Your task to perform on an android device: Find coffee shops on Maps Image 0: 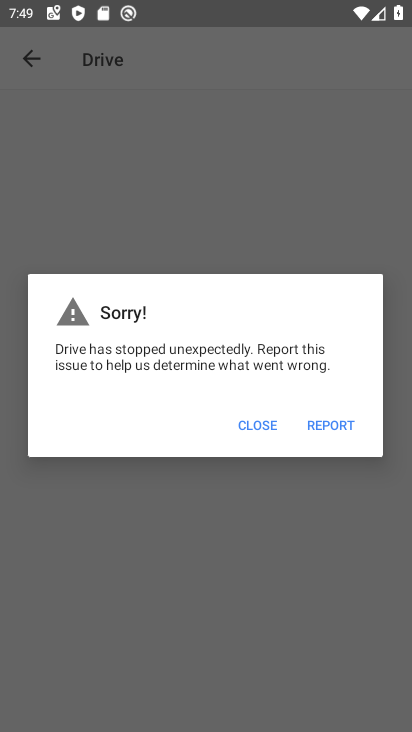
Step 0: press home button
Your task to perform on an android device: Find coffee shops on Maps Image 1: 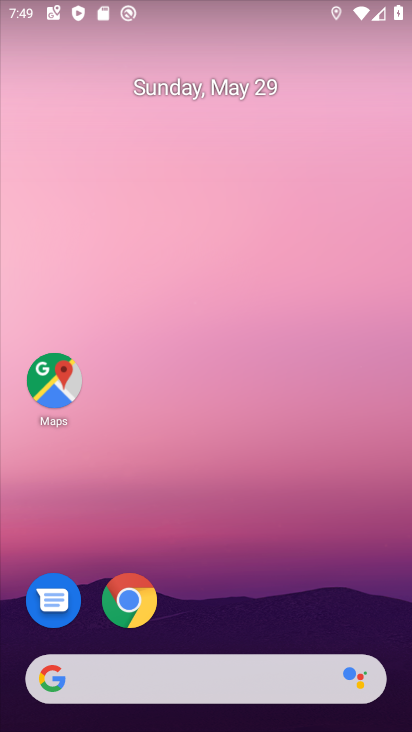
Step 1: drag from (324, 606) to (280, 34)
Your task to perform on an android device: Find coffee shops on Maps Image 2: 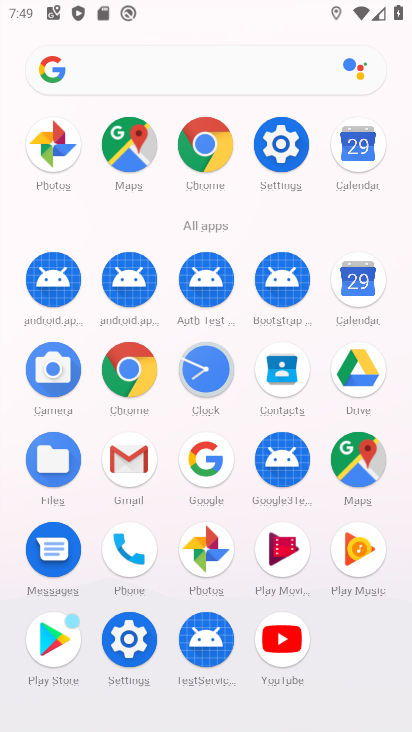
Step 2: click (125, 146)
Your task to perform on an android device: Find coffee shops on Maps Image 3: 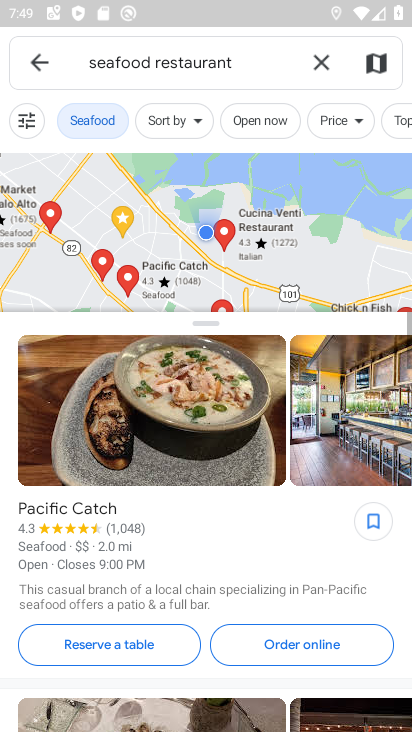
Step 3: click (314, 66)
Your task to perform on an android device: Find coffee shops on Maps Image 4: 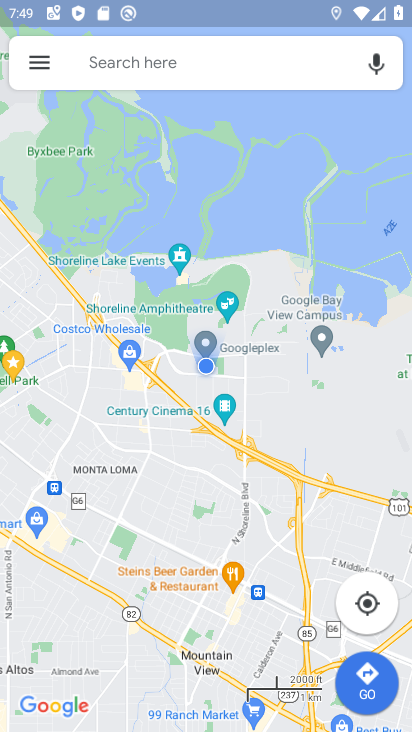
Step 4: click (181, 58)
Your task to perform on an android device: Find coffee shops on Maps Image 5: 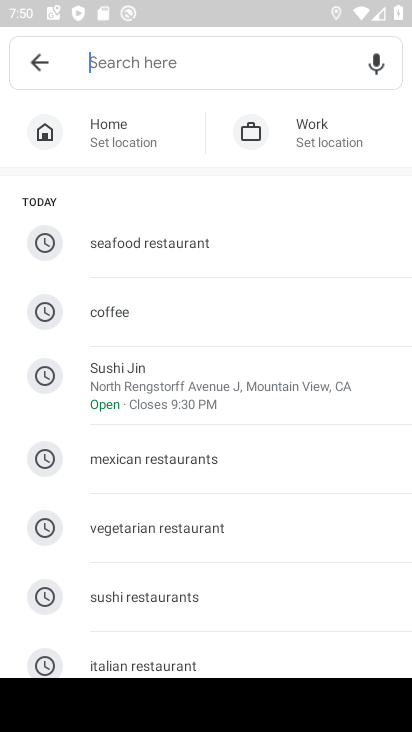
Step 5: type "coffee shops"
Your task to perform on an android device: Find coffee shops on Maps Image 6: 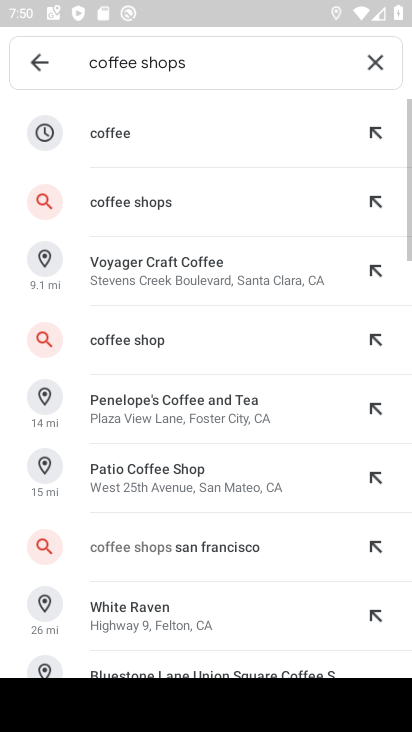
Step 6: click (149, 208)
Your task to perform on an android device: Find coffee shops on Maps Image 7: 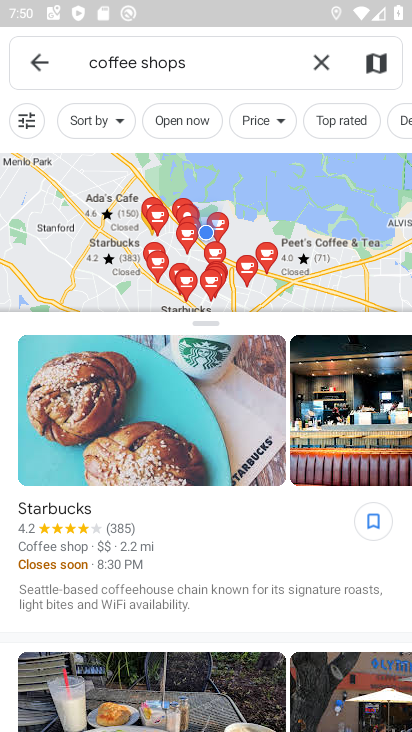
Step 7: task complete